Your task to perform on an android device: empty trash in google photos Image 0: 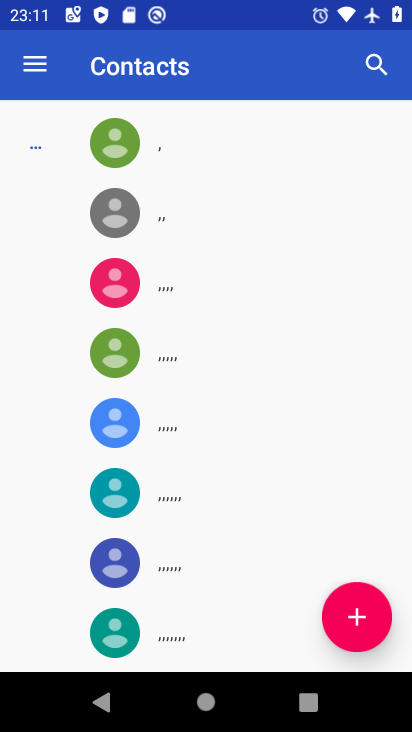
Step 0: press home button
Your task to perform on an android device: empty trash in google photos Image 1: 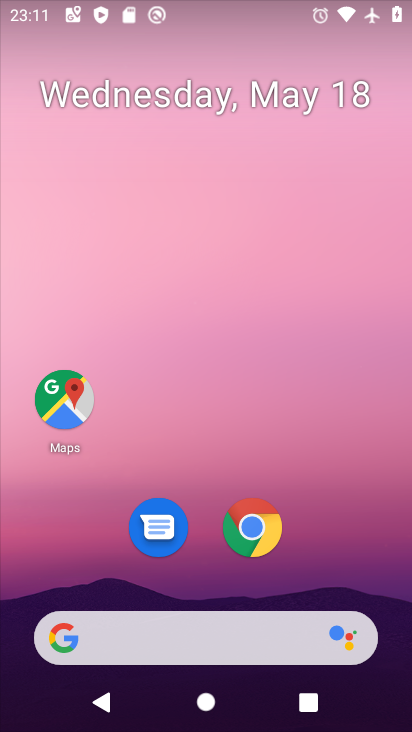
Step 1: drag from (358, 576) to (315, 19)
Your task to perform on an android device: empty trash in google photos Image 2: 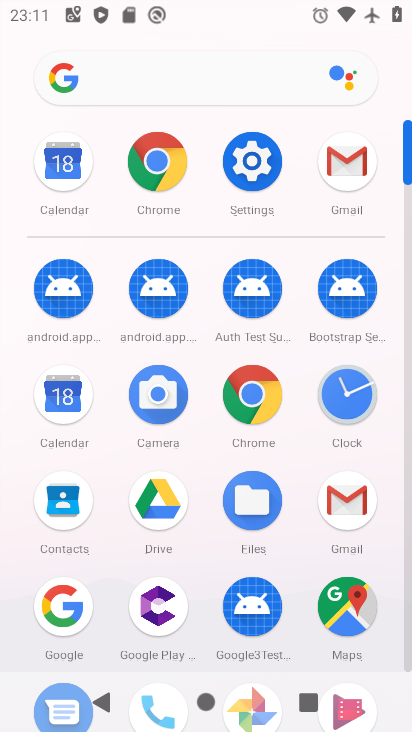
Step 2: click (405, 646)
Your task to perform on an android device: empty trash in google photos Image 3: 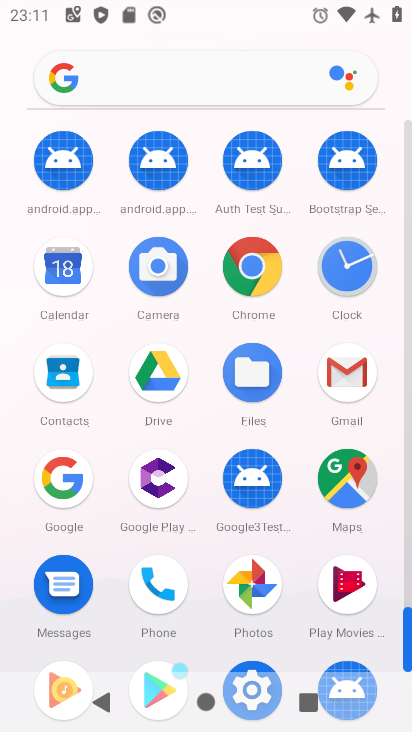
Step 3: click (270, 594)
Your task to perform on an android device: empty trash in google photos Image 4: 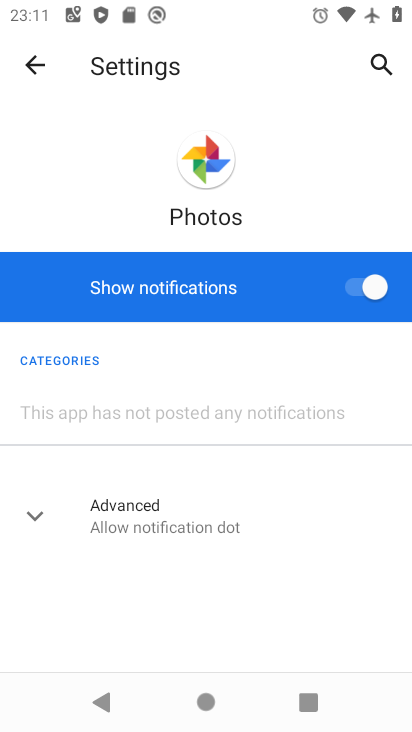
Step 4: click (42, 73)
Your task to perform on an android device: empty trash in google photos Image 5: 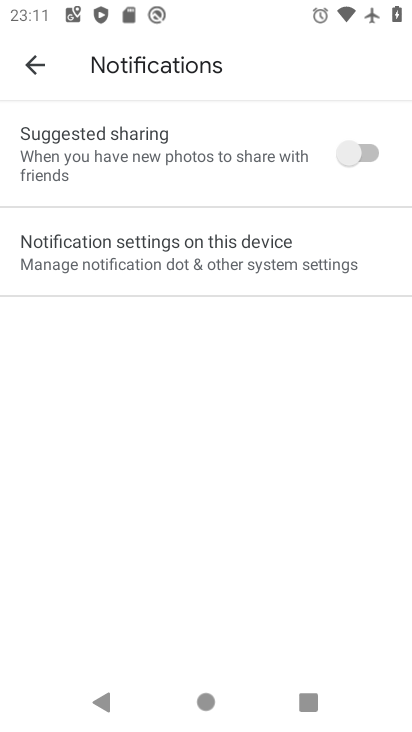
Step 5: click (42, 73)
Your task to perform on an android device: empty trash in google photos Image 6: 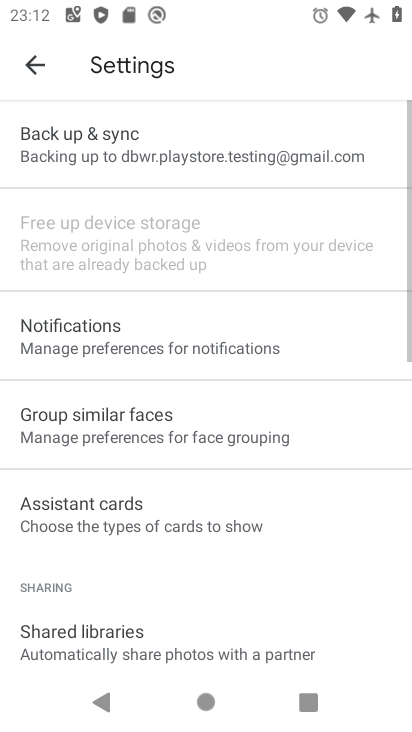
Step 6: click (42, 73)
Your task to perform on an android device: empty trash in google photos Image 7: 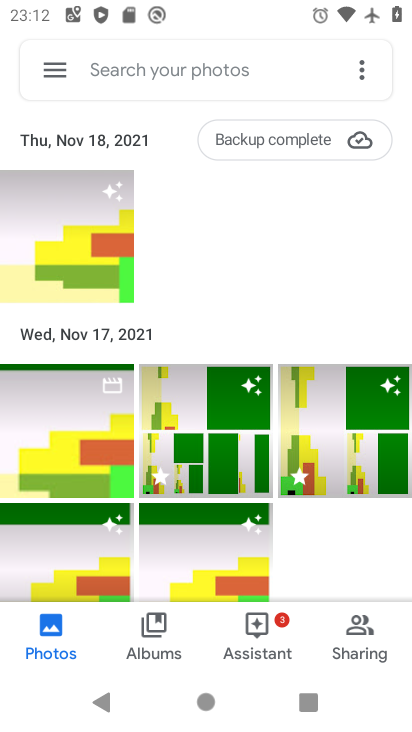
Step 7: click (42, 73)
Your task to perform on an android device: empty trash in google photos Image 8: 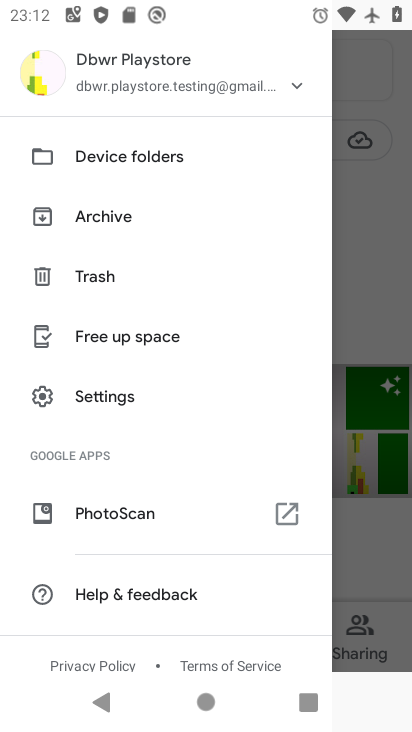
Step 8: click (102, 288)
Your task to perform on an android device: empty trash in google photos Image 9: 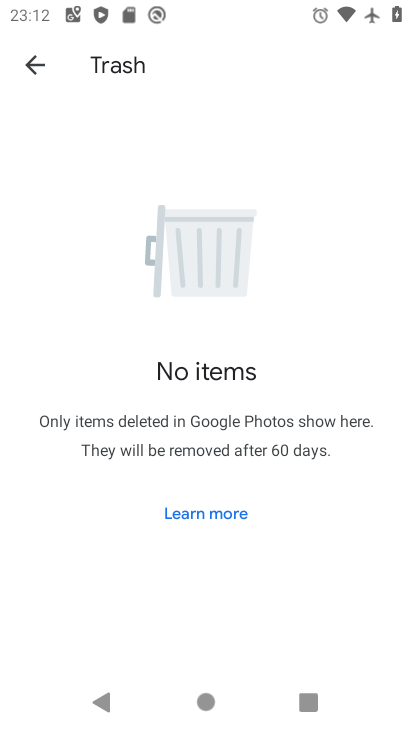
Step 9: task complete